Your task to perform on an android device: turn on priority inbox in the gmail app Image 0: 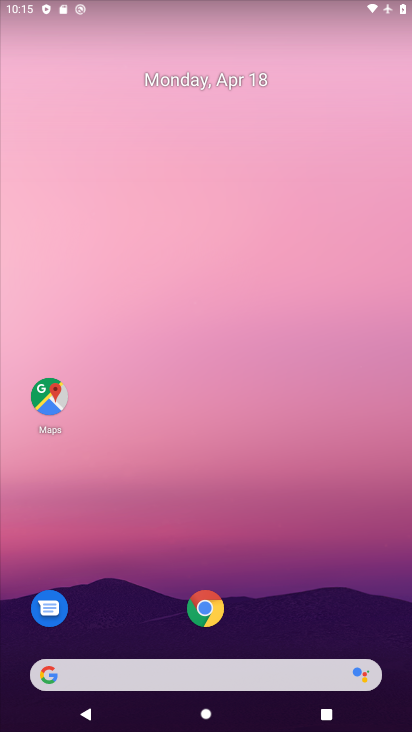
Step 0: click (205, 613)
Your task to perform on an android device: turn on priority inbox in the gmail app Image 1: 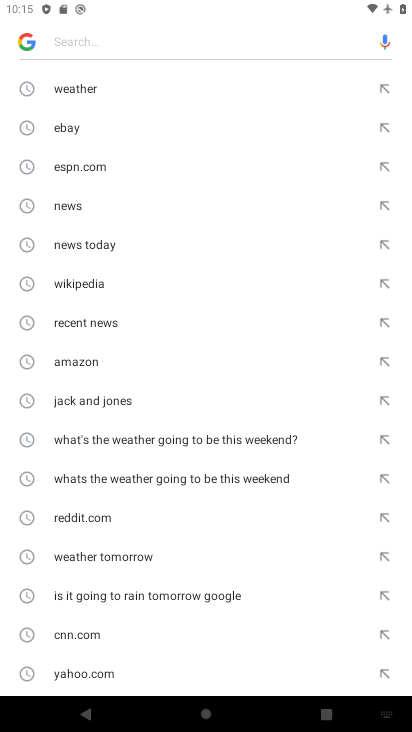
Step 1: press home button
Your task to perform on an android device: turn on priority inbox in the gmail app Image 2: 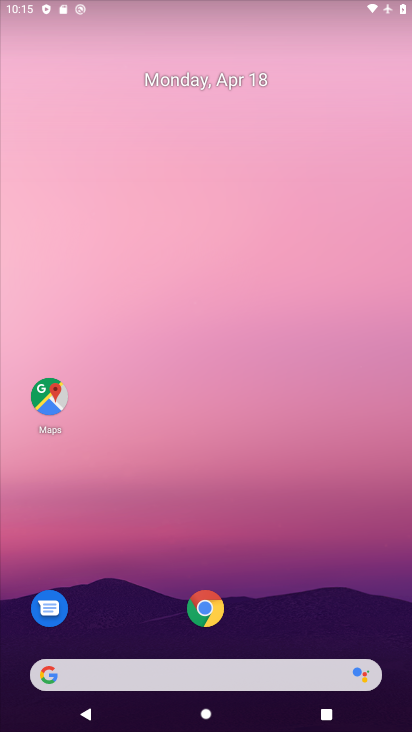
Step 2: drag from (197, 456) to (163, 118)
Your task to perform on an android device: turn on priority inbox in the gmail app Image 3: 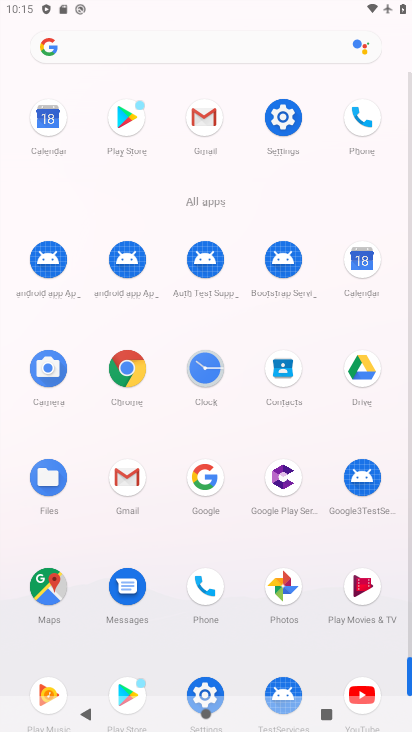
Step 3: click (127, 482)
Your task to perform on an android device: turn on priority inbox in the gmail app Image 4: 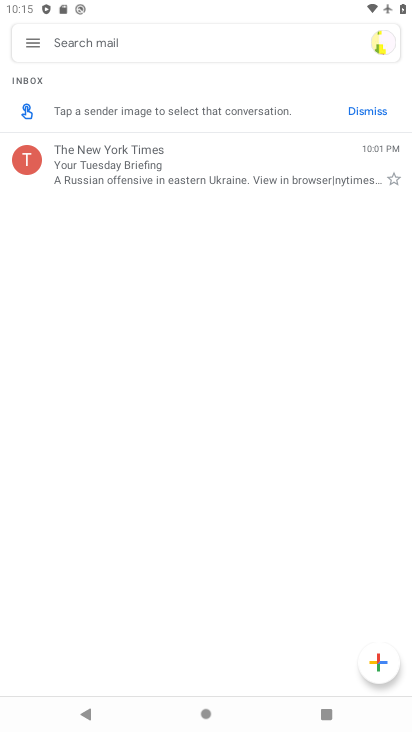
Step 4: click (34, 44)
Your task to perform on an android device: turn on priority inbox in the gmail app Image 5: 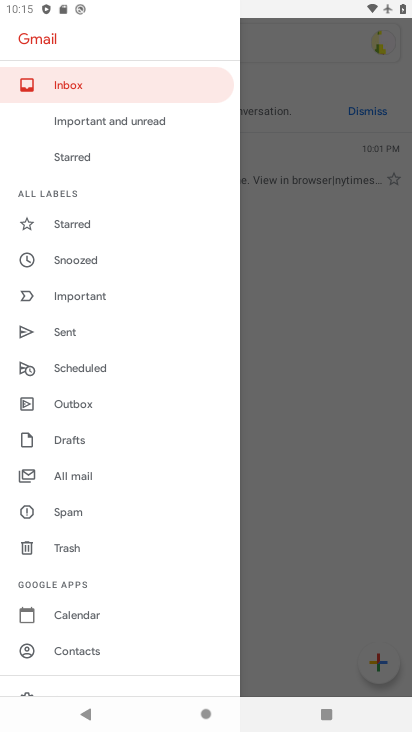
Step 5: drag from (73, 655) to (67, 306)
Your task to perform on an android device: turn on priority inbox in the gmail app Image 6: 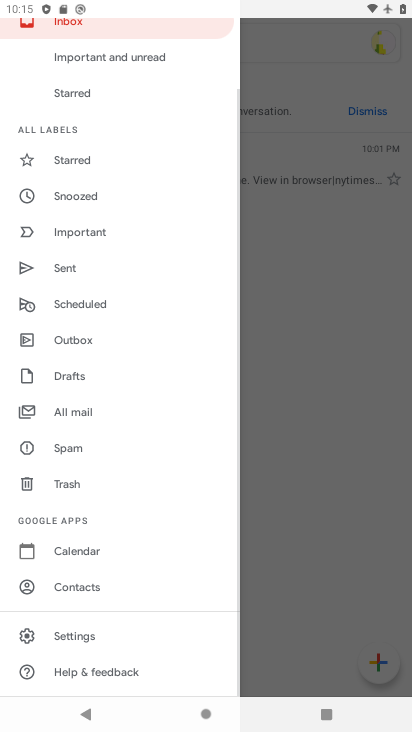
Step 6: click (74, 638)
Your task to perform on an android device: turn on priority inbox in the gmail app Image 7: 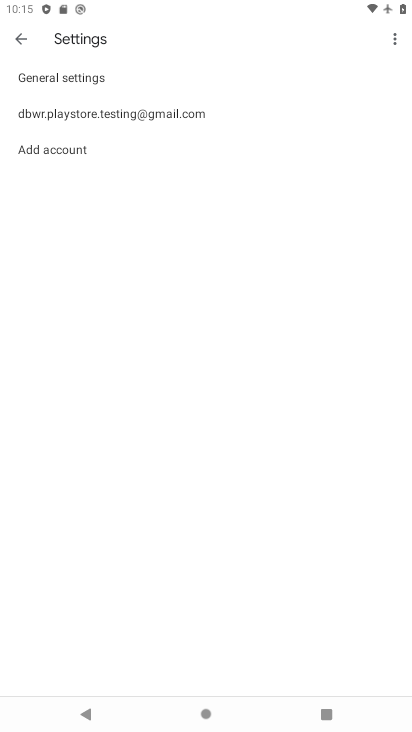
Step 7: click (105, 109)
Your task to perform on an android device: turn on priority inbox in the gmail app Image 8: 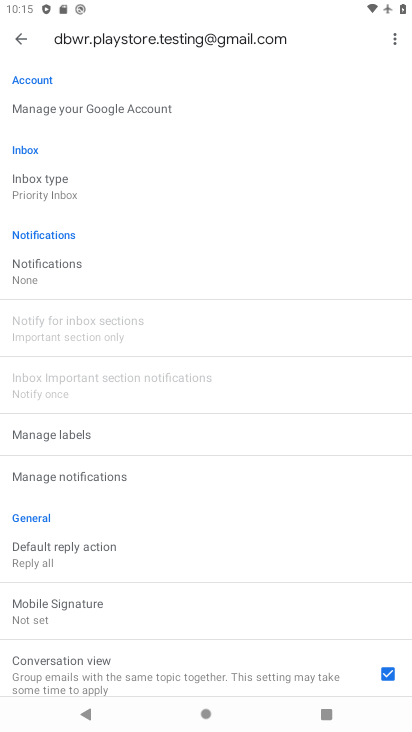
Step 8: click (50, 190)
Your task to perform on an android device: turn on priority inbox in the gmail app Image 9: 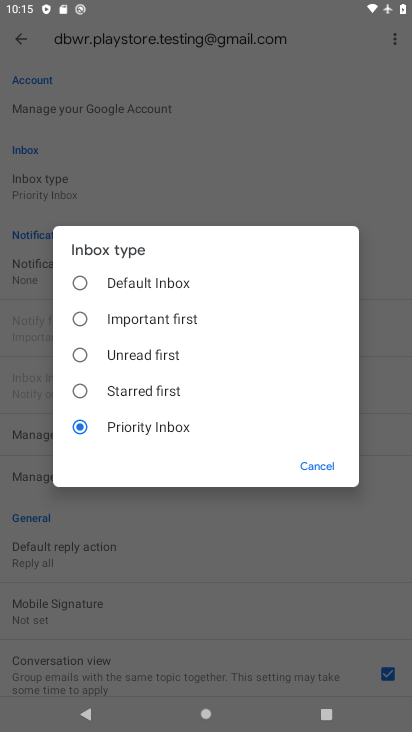
Step 9: click (180, 429)
Your task to perform on an android device: turn on priority inbox in the gmail app Image 10: 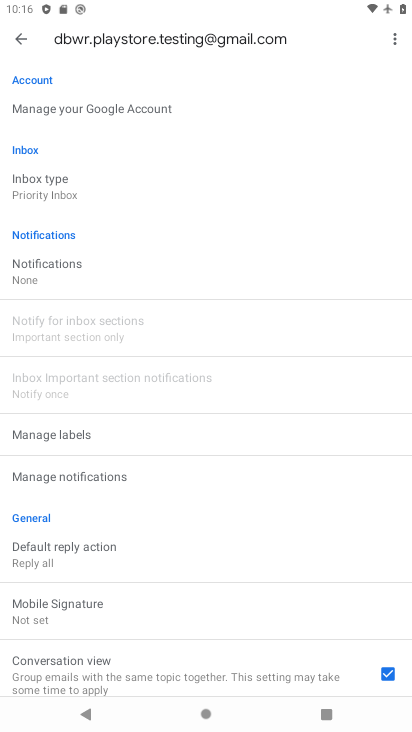
Step 10: task complete